Your task to perform on an android device: turn off picture-in-picture Image 0: 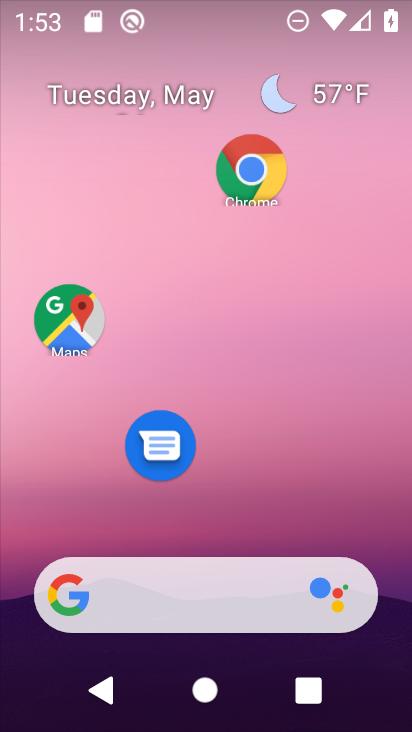
Step 0: drag from (233, 722) to (194, 47)
Your task to perform on an android device: turn off picture-in-picture Image 1: 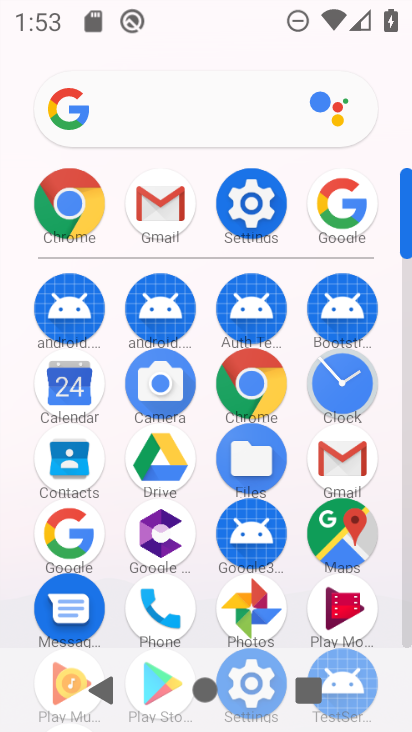
Step 1: click (258, 188)
Your task to perform on an android device: turn off picture-in-picture Image 2: 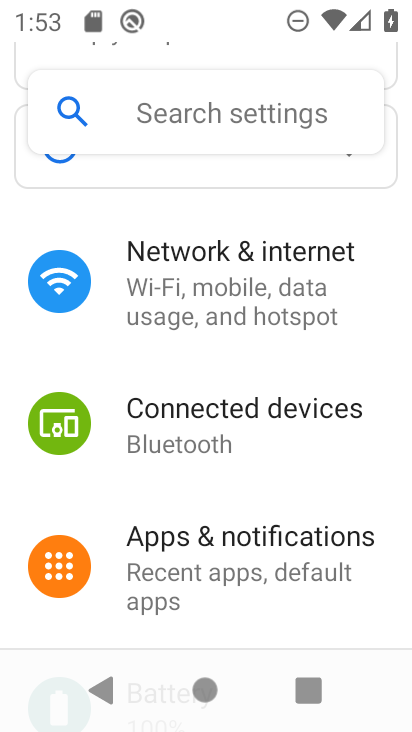
Step 2: click (231, 546)
Your task to perform on an android device: turn off picture-in-picture Image 3: 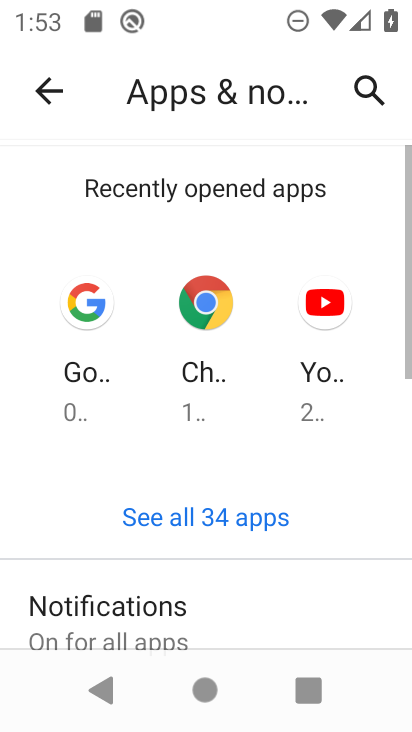
Step 3: drag from (236, 613) to (245, 205)
Your task to perform on an android device: turn off picture-in-picture Image 4: 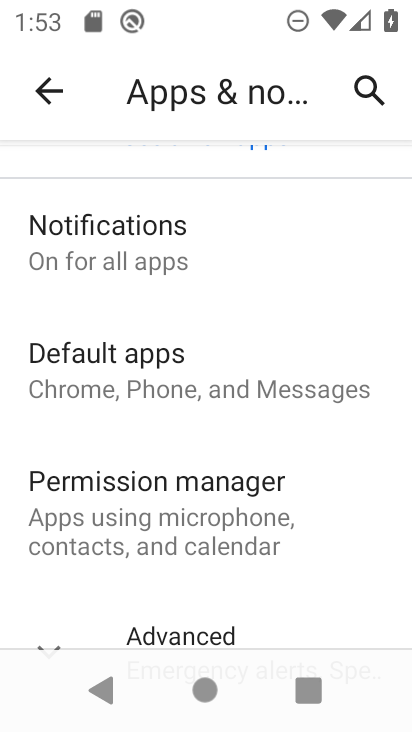
Step 4: drag from (194, 609) to (205, 232)
Your task to perform on an android device: turn off picture-in-picture Image 5: 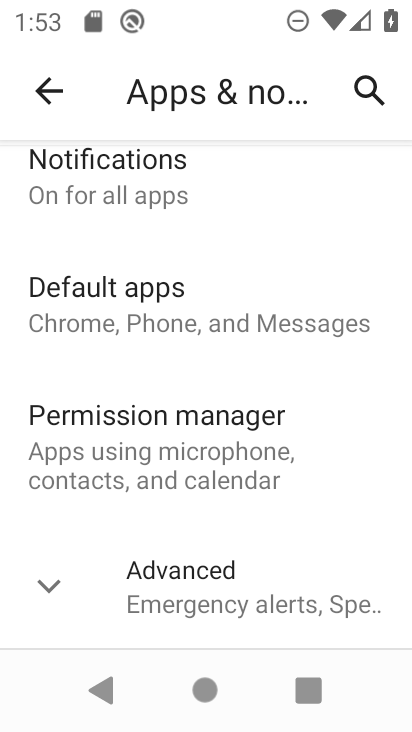
Step 5: click (160, 574)
Your task to perform on an android device: turn off picture-in-picture Image 6: 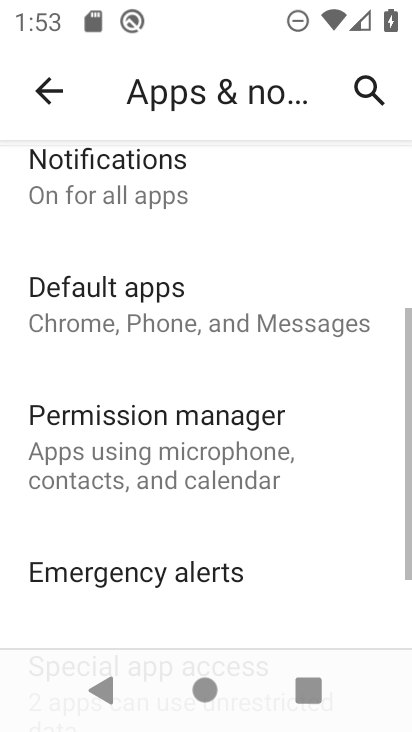
Step 6: drag from (215, 609) to (229, 228)
Your task to perform on an android device: turn off picture-in-picture Image 7: 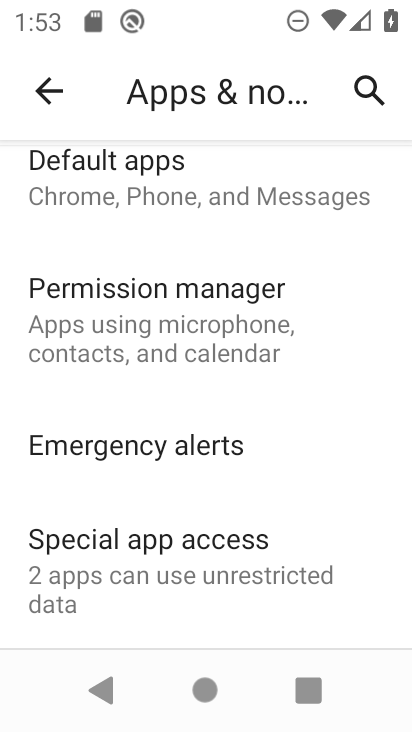
Step 7: click (140, 547)
Your task to perform on an android device: turn off picture-in-picture Image 8: 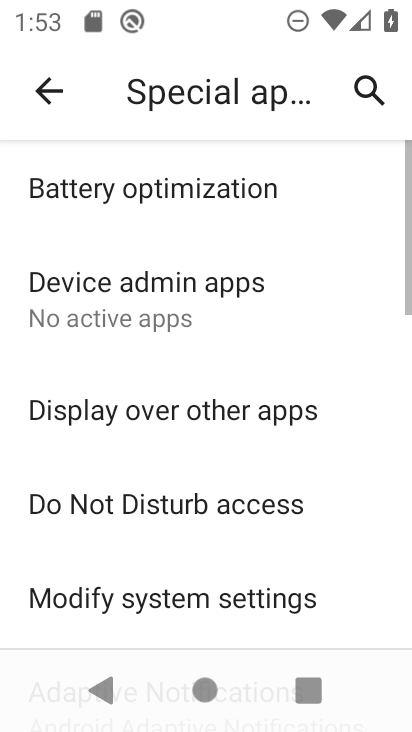
Step 8: drag from (224, 602) to (240, 230)
Your task to perform on an android device: turn off picture-in-picture Image 9: 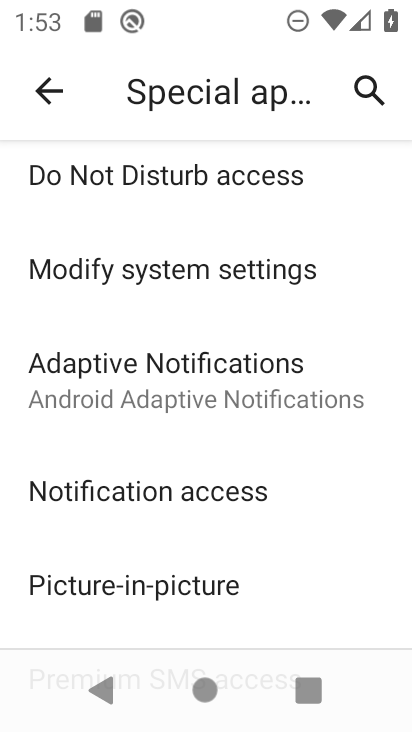
Step 9: click (187, 588)
Your task to perform on an android device: turn off picture-in-picture Image 10: 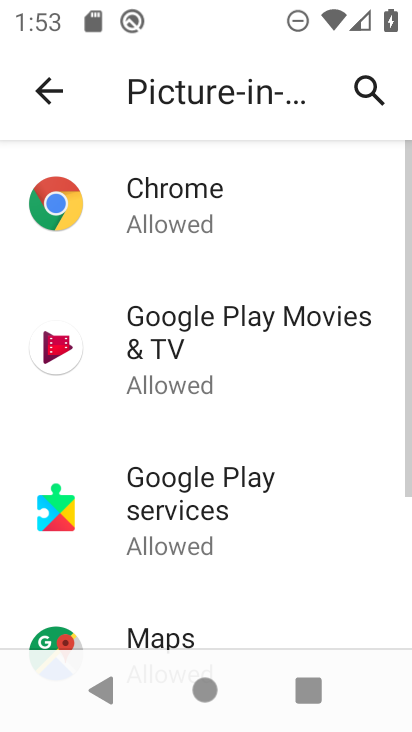
Step 10: drag from (188, 589) to (194, 231)
Your task to perform on an android device: turn off picture-in-picture Image 11: 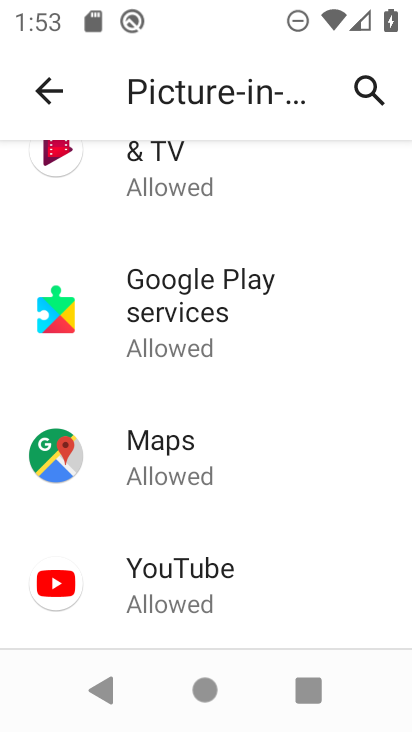
Step 11: click (137, 573)
Your task to perform on an android device: turn off picture-in-picture Image 12: 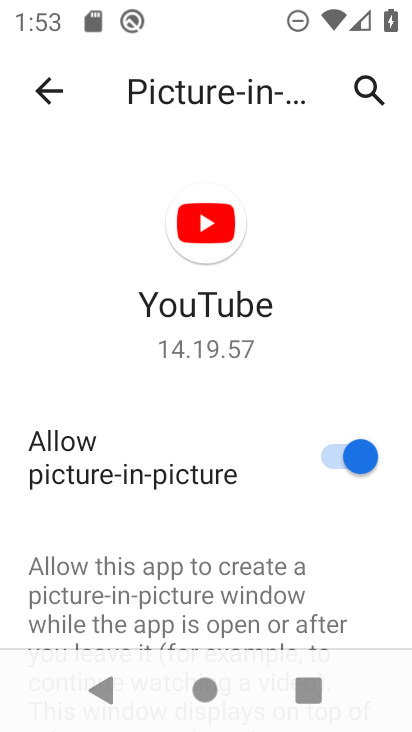
Step 12: click (334, 458)
Your task to perform on an android device: turn off picture-in-picture Image 13: 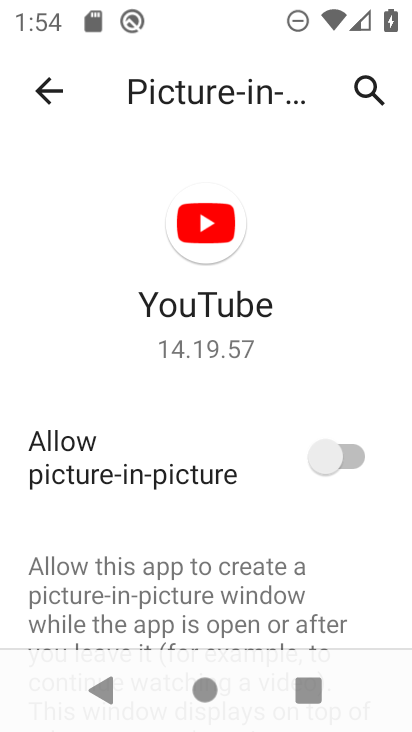
Step 13: task complete